Your task to perform on an android device: Go to display settings Image 0: 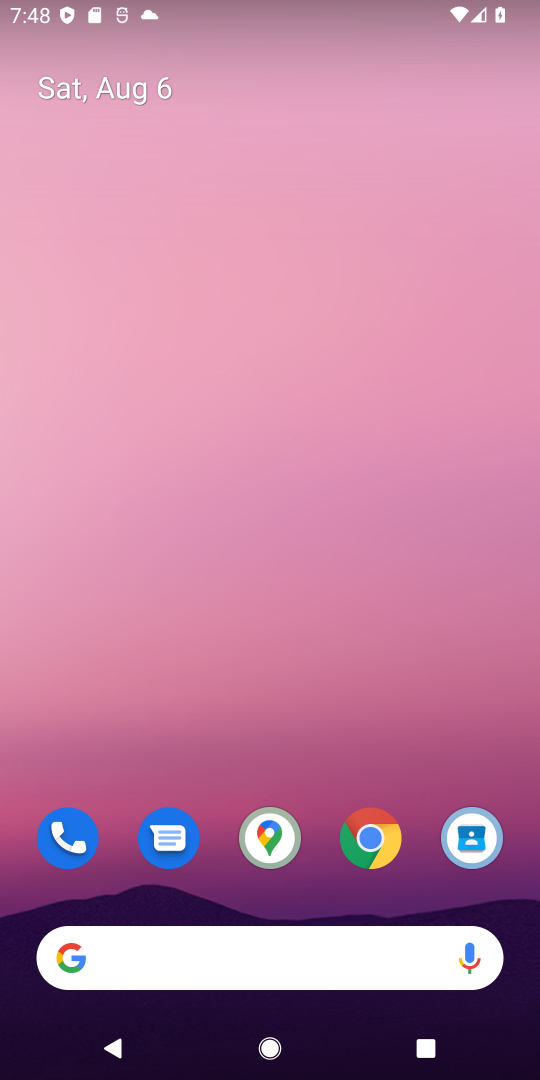
Step 0: drag from (289, 871) to (252, 370)
Your task to perform on an android device: Go to display settings Image 1: 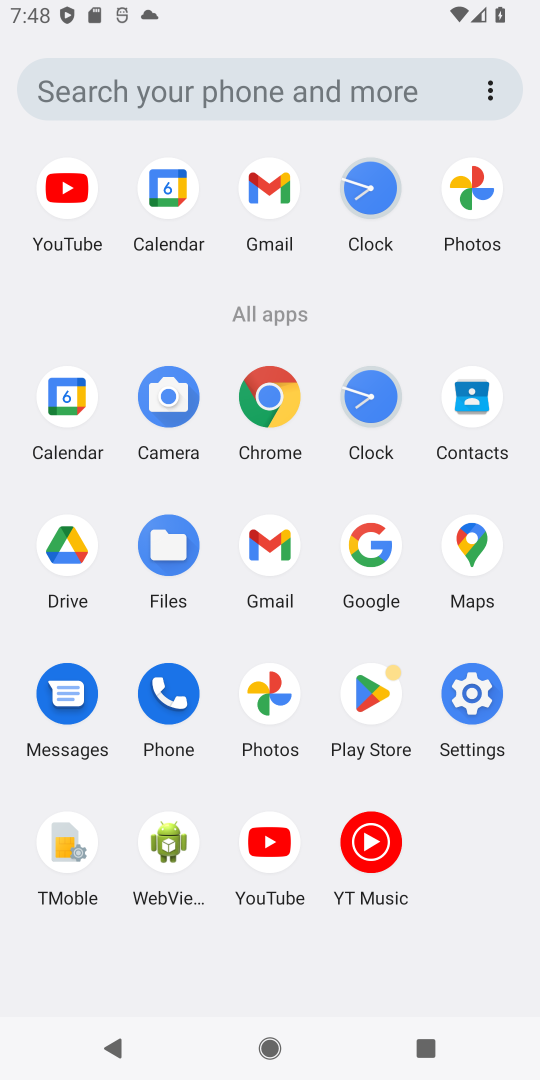
Step 1: click (465, 696)
Your task to perform on an android device: Go to display settings Image 2: 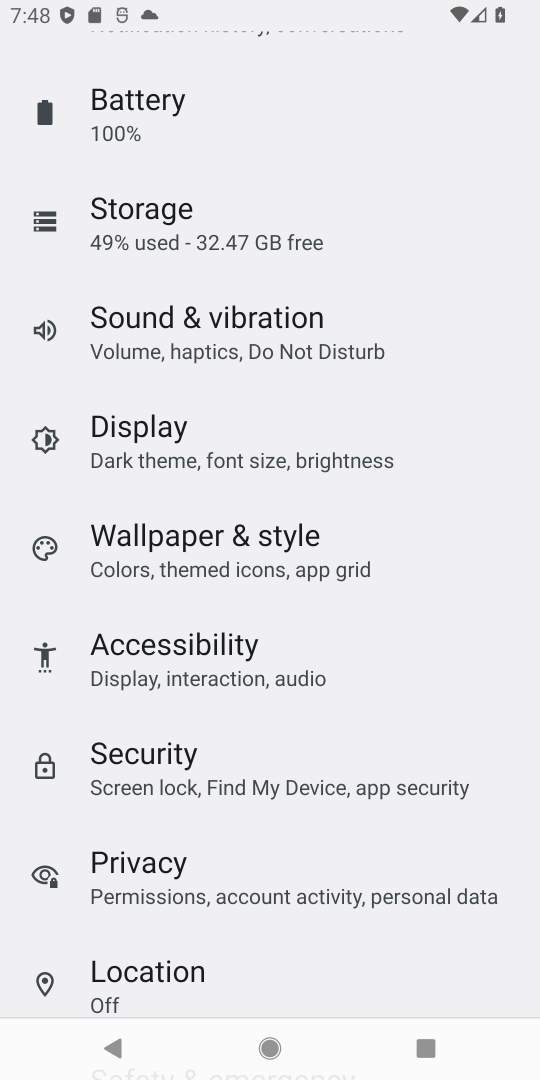
Step 2: click (112, 436)
Your task to perform on an android device: Go to display settings Image 3: 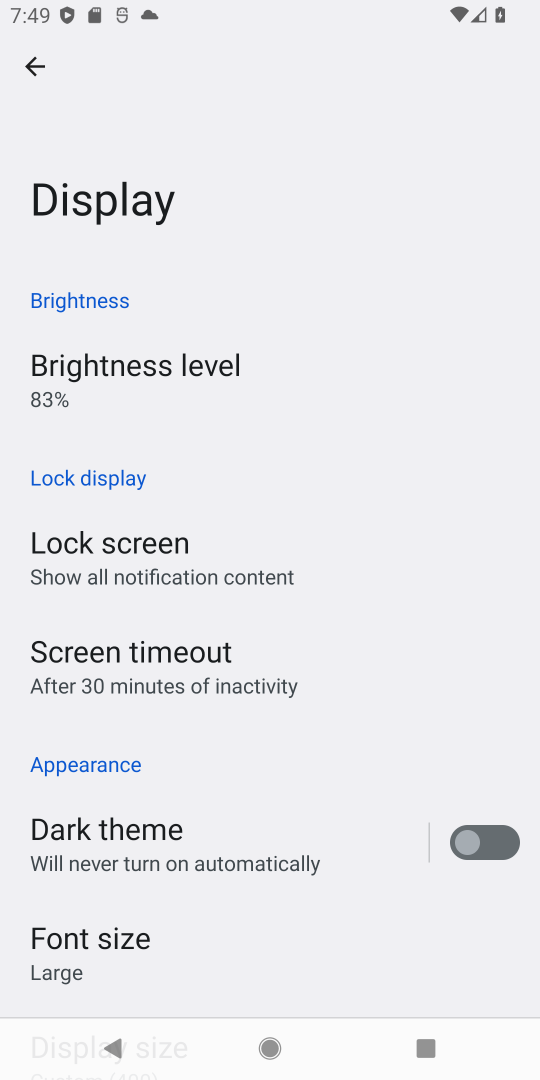
Step 3: task complete